Your task to perform on an android device: Open sound settings Image 0: 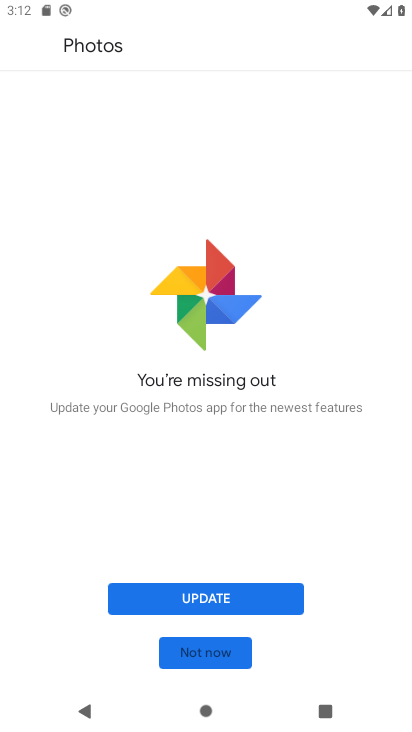
Step 0: press home button
Your task to perform on an android device: Open sound settings Image 1: 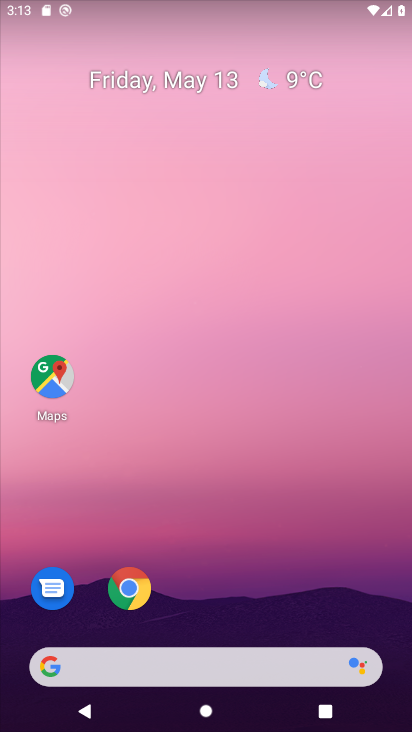
Step 1: drag from (348, 550) to (215, 85)
Your task to perform on an android device: Open sound settings Image 2: 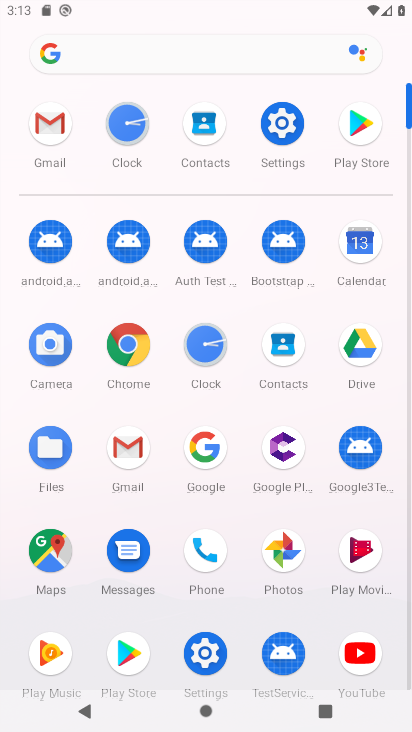
Step 2: click (289, 134)
Your task to perform on an android device: Open sound settings Image 3: 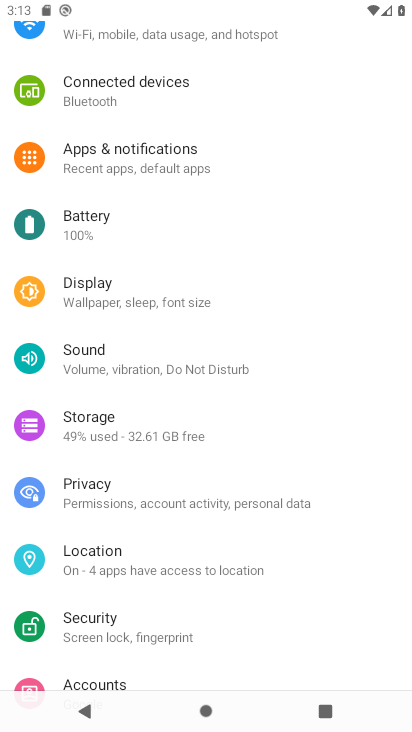
Step 3: click (108, 358)
Your task to perform on an android device: Open sound settings Image 4: 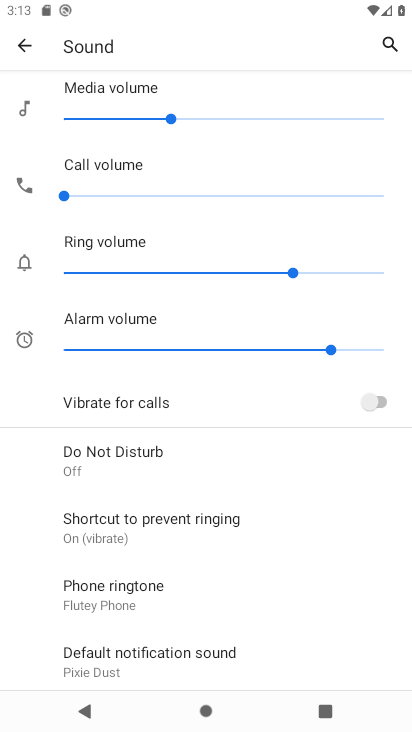
Step 4: task complete